Your task to perform on an android device: turn off wifi Image 0: 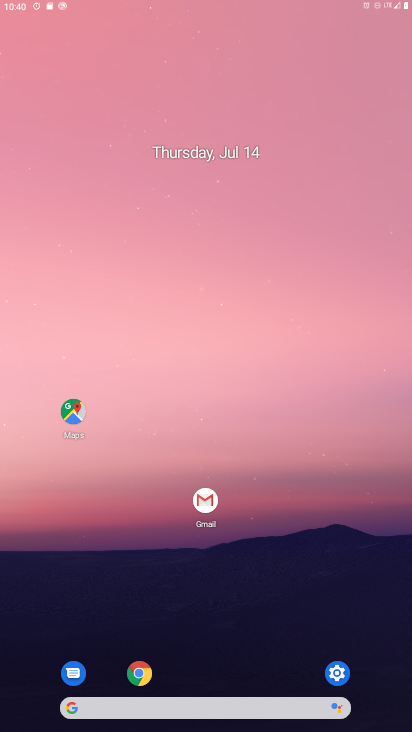
Step 0: press home button
Your task to perform on an android device: turn off wifi Image 1: 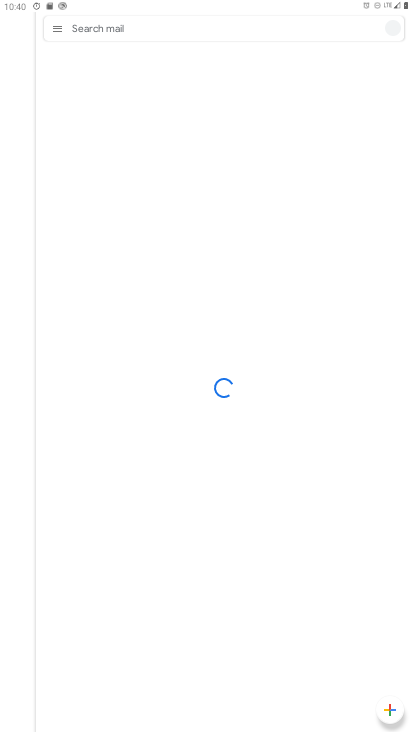
Step 1: click (177, 168)
Your task to perform on an android device: turn off wifi Image 2: 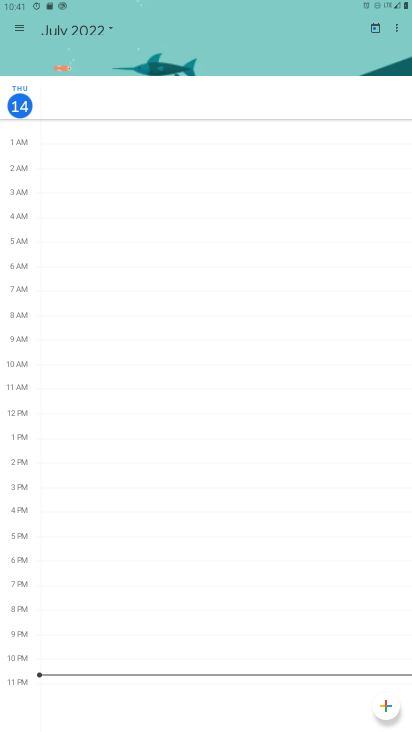
Step 2: press home button
Your task to perform on an android device: turn off wifi Image 3: 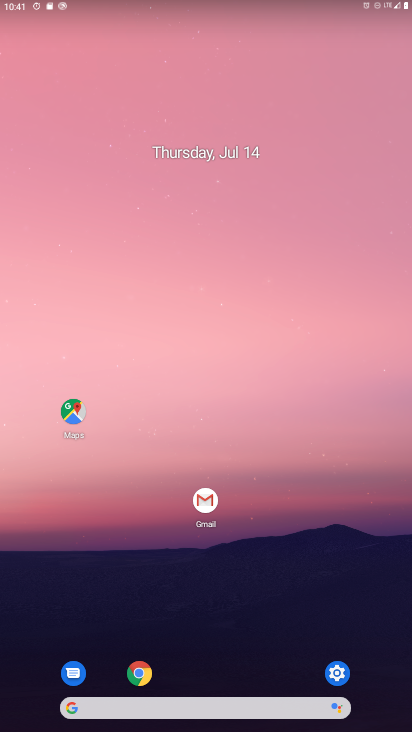
Step 3: click (340, 669)
Your task to perform on an android device: turn off wifi Image 4: 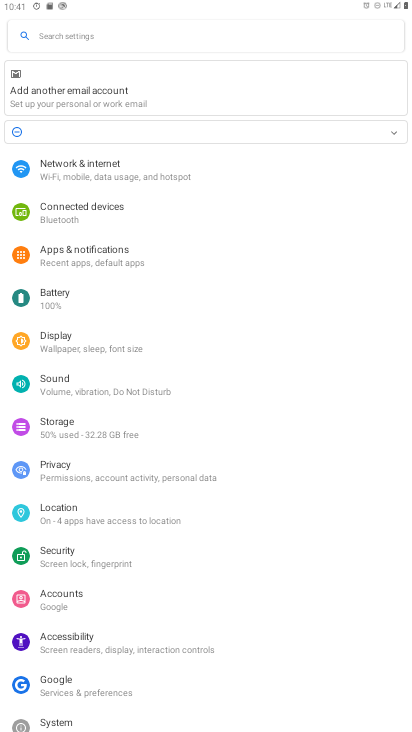
Step 4: click (127, 182)
Your task to perform on an android device: turn off wifi Image 5: 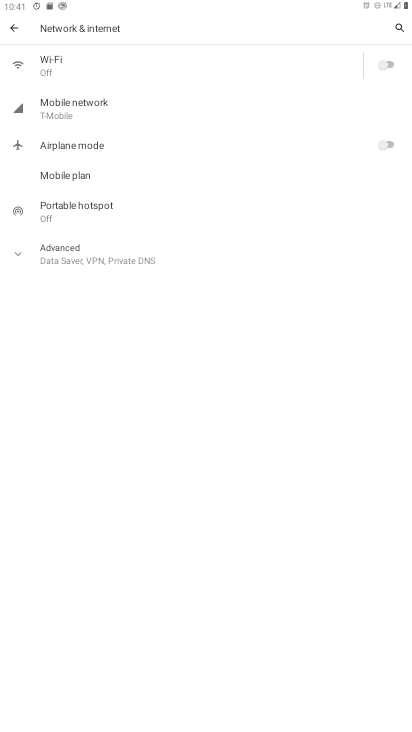
Step 5: click (148, 77)
Your task to perform on an android device: turn off wifi Image 6: 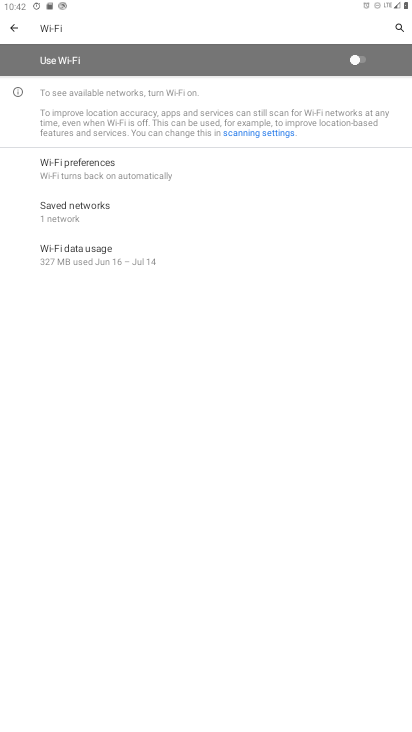
Step 6: task complete